Your task to perform on an android device: Go to Google maps Image 0: 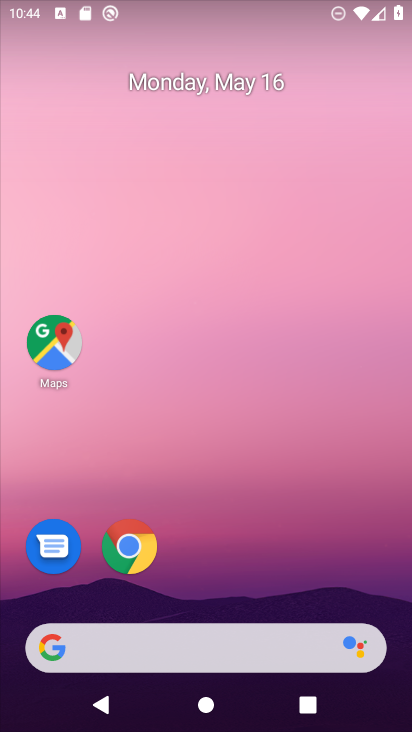
Step 0: click (48, 338)
Your task to perform on an android device: Go to Google maps Image 1: 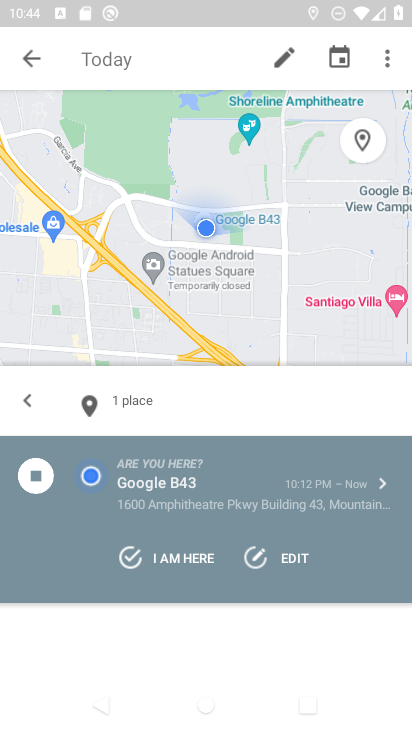
Step 1: task complete